Your task to perform on an android device: Open notification settings Image 0: 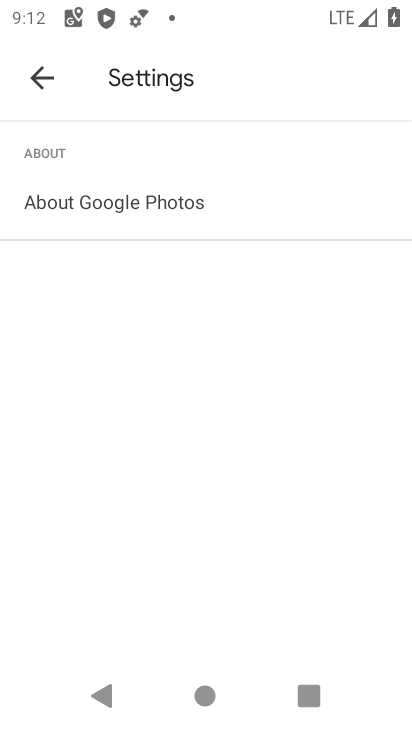
Step 0: press home button
Your task to perform on an android device: Open notification settings Image 1: 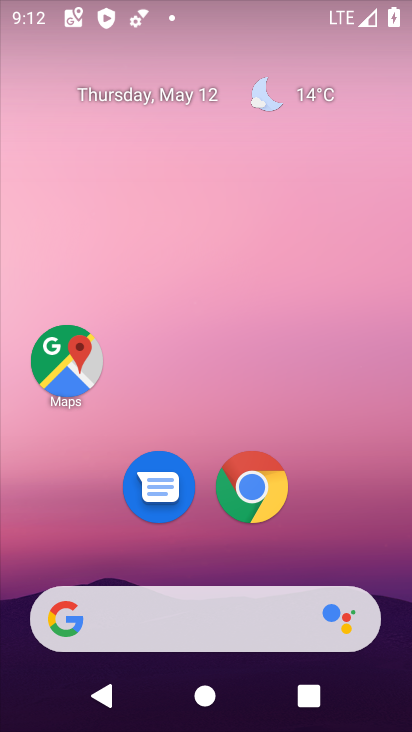
Step 1: drag from (26, 619) to (354, 167)
Your task to perform on an android device: Open notification settings Image 2: 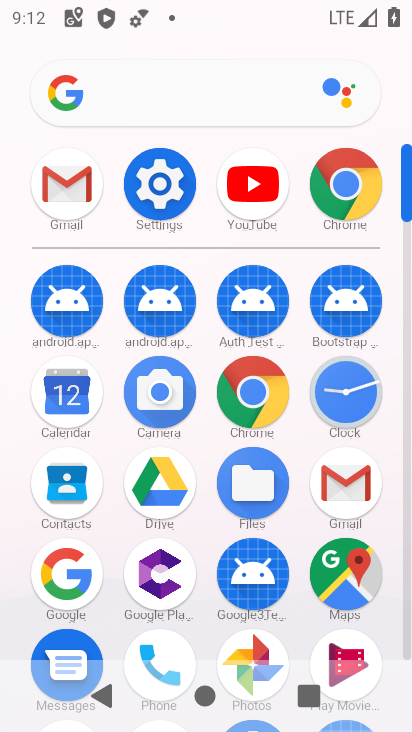
Step 2: click (171, 188)
Your task to perform on an android device: Open notification settings Image 3: 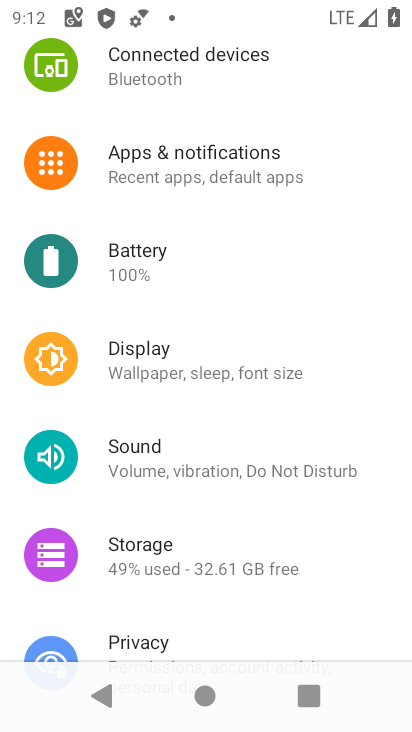
Step 3: click (169, 170)
Your task to perform on an android device: Open notification settings Image 4: 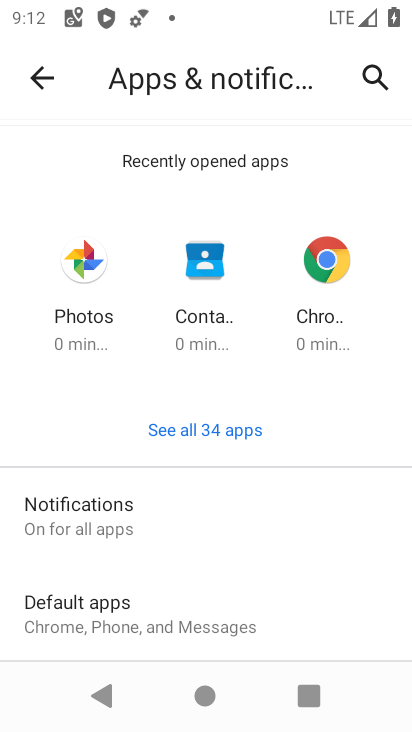
Step 4: click (25, 507)
Your task to perform on an android device: Open notification settings Image 5: 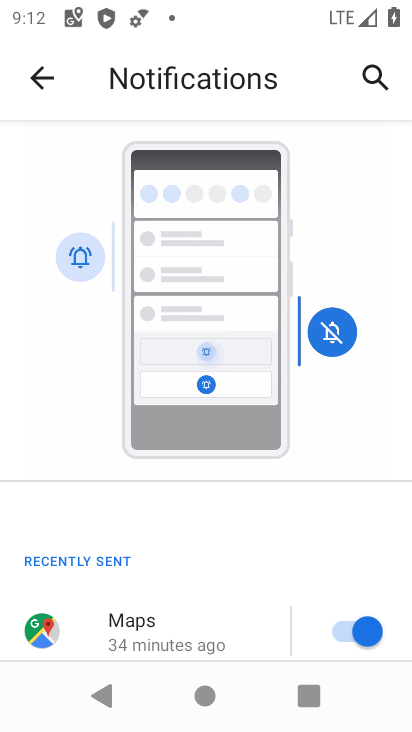
Step 5: task complete